Your task to perform on an android device: check google app version Image 0: 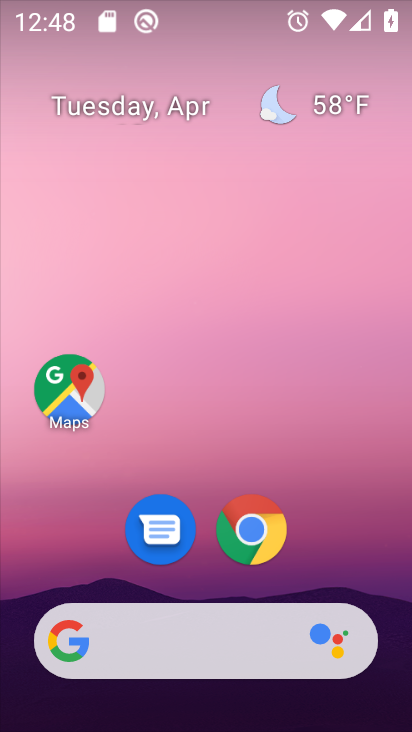
Step 0: drag from (399, 638) to (267, 44)
Your task to perform on an android device: check google app version Image 1: 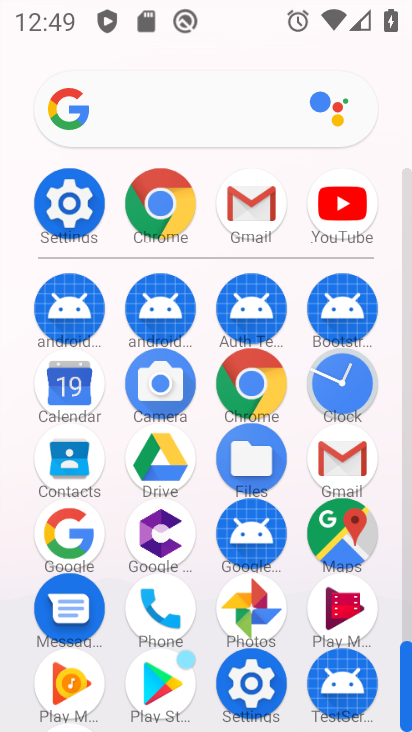
Step 1: click (63, 541)
Your task to perform on an android device: check google app version Image 2: 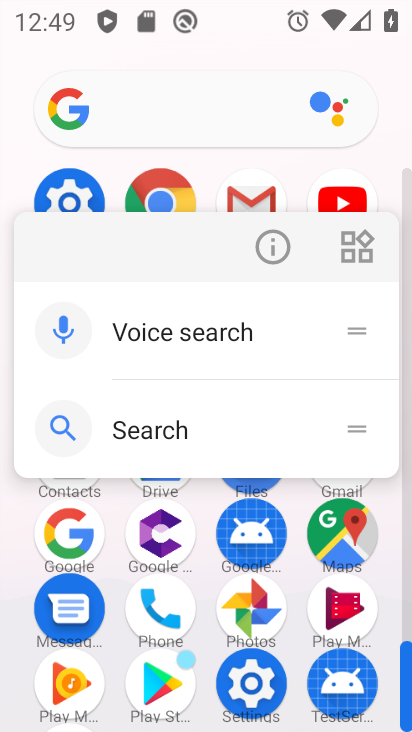
Step 2: click (267, 247)
Your task to perform on an android device: check google app version Image 3: 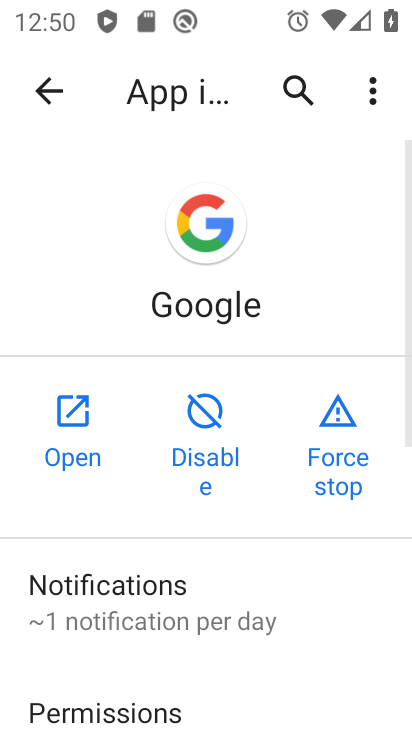
Step 3: drag from (196, 652) to (214, 101)
Your task to perform on an android device: check google app version Image 4: 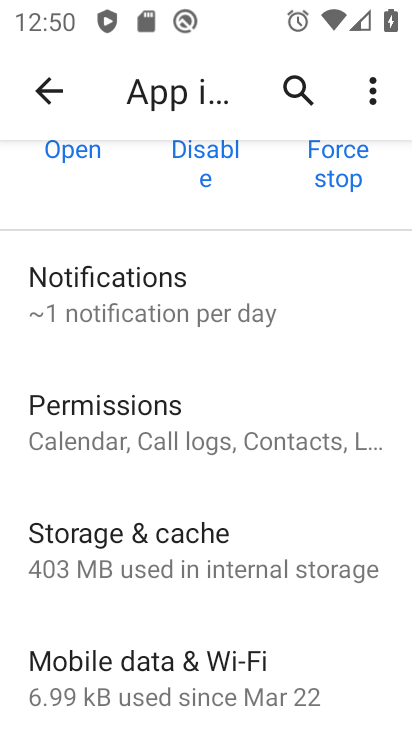
Step 4: drag from (108, 619) to (180, 101)
Your task to perform on an android device: check google app version Image 5: 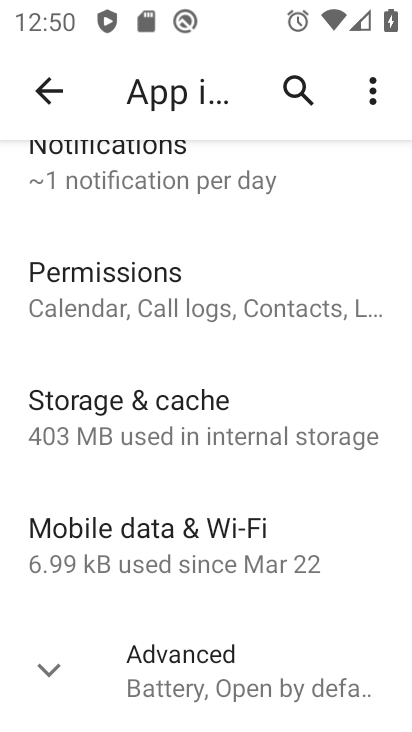
Step 5: click (42, 671)
Your task to perform on an android device: check google app version Image 6: 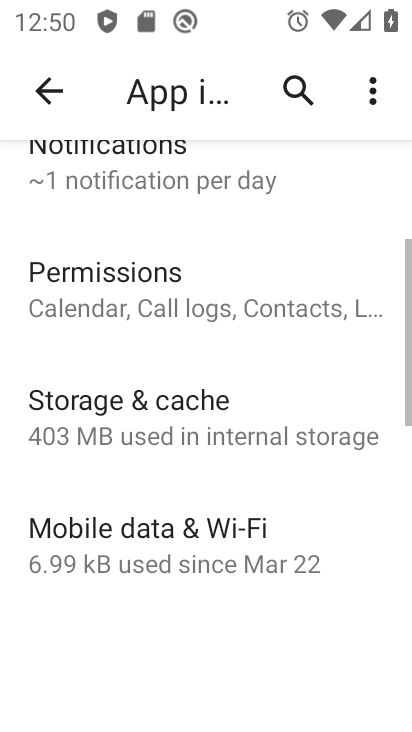
Step 6: task complete